Your task to perform on an android device: Show me popular videos on Youtube Image 0: 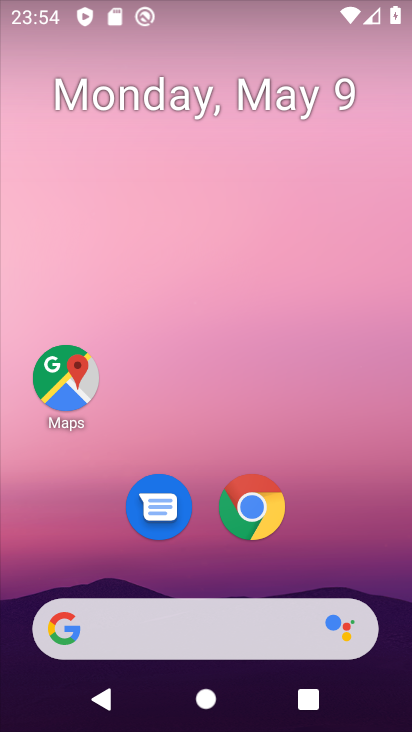
Step 0: drag from (347, 523) to (281, 143)
Your task to perform on an android device: Show me popular videos on Youtube Image 1: 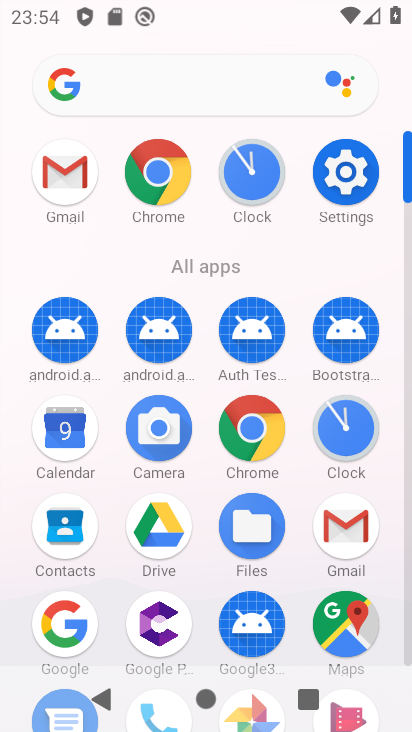
Step 1: drag from (226, 273) to (194, 134)
Your task to perform on an android device: Show me popular videos on Youtube Image 2: 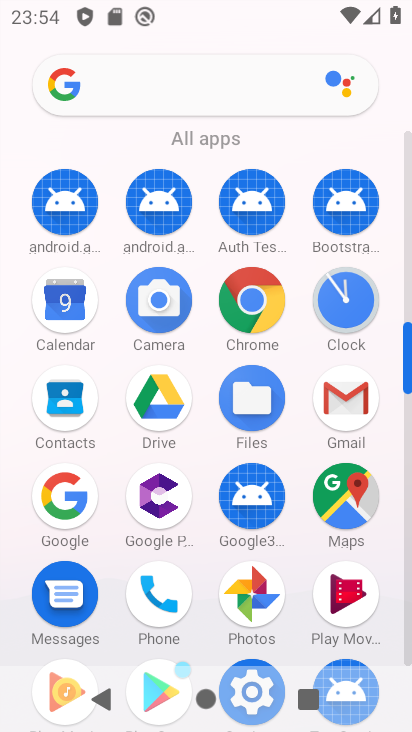
Step 2: drag from (207, 399) to (194, 208)
Your task to perform on an android device: Show me popular videos on Youtube Image 3: 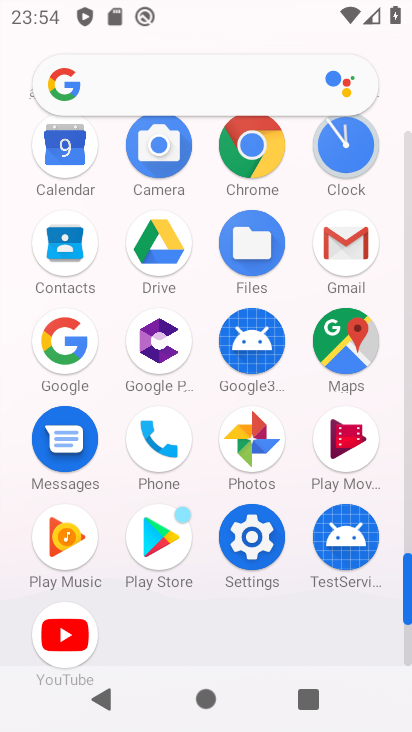
Step 3: click (60, 614)
Your task to perform on an android device: Show me popular videos on Youtube Image 4: 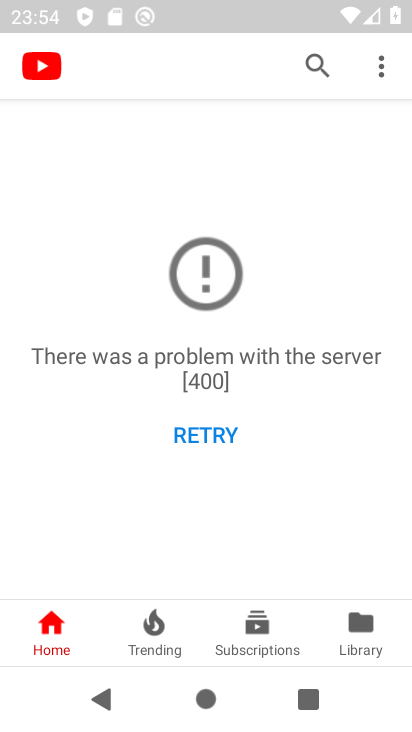
Step 4: click (161, 624)
Your task to perform on an android device: Show me popular videos on Youtube Image 5: 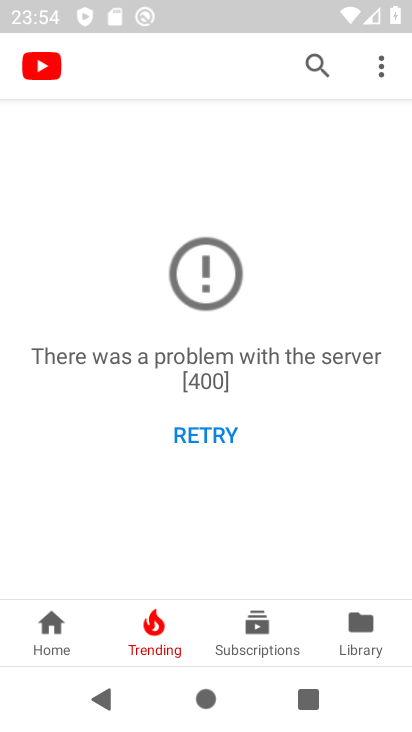
Step 5: click (161, 623)
Your task to perform on an android device: Show me popular videos on Youtube Image 6: 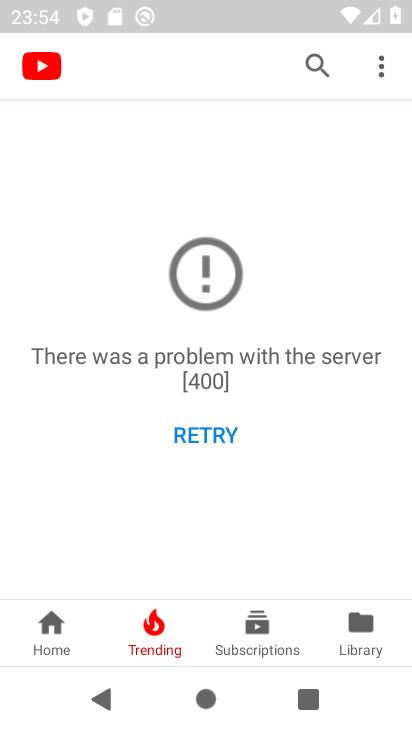
Step 6: task complete